Your task to perform on an android device: toggle location history Image 0: 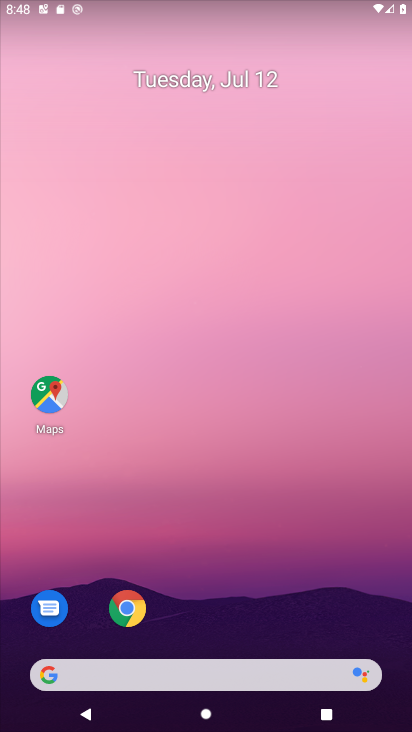
Step 0: click (53, 395)
Your task to perform on an android device: toggle location history Image 1: 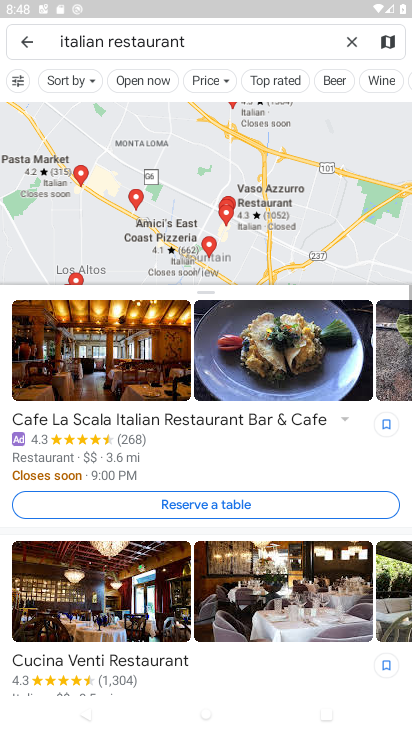
Step 1: click (24, 44)
Your task to perform on an android device: toggle location history Image 2: 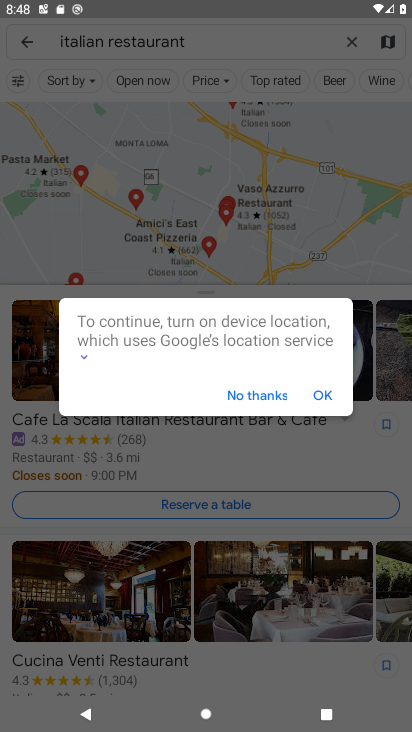
Step 2: click (326, 394)
Your task to perform on an android device: toggle location history Image 3: 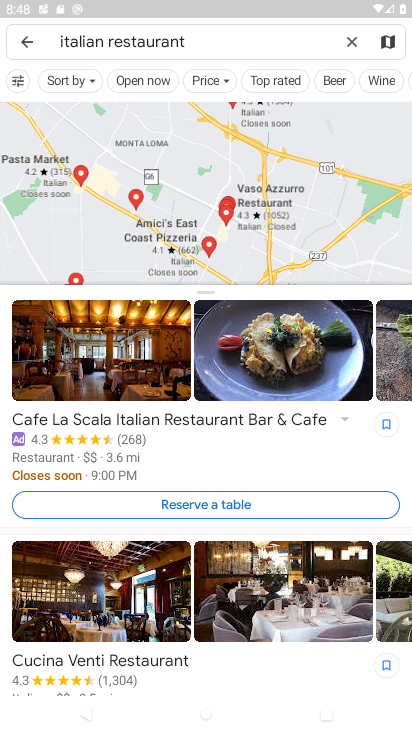
Step 3: click (22, 41)
Your task to perform on an android device: toggle location history Image 4: 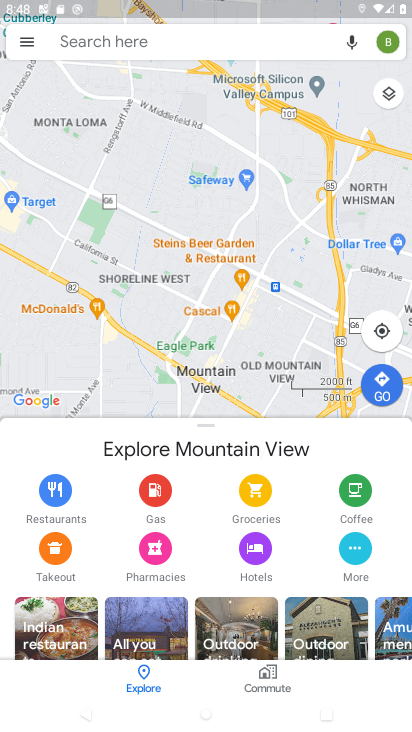
Step 4: click (33, 41)
Your task to perform on an android device: toggle location history Image 5: 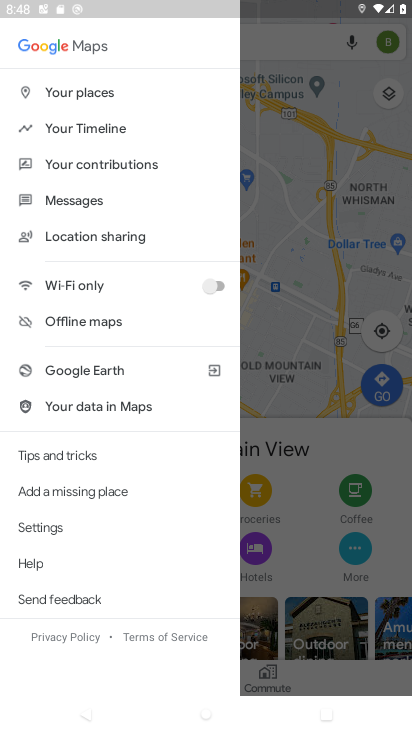
Step 5: click (116, 127)
Your task to perform on an android device: toggle location history Image 6: 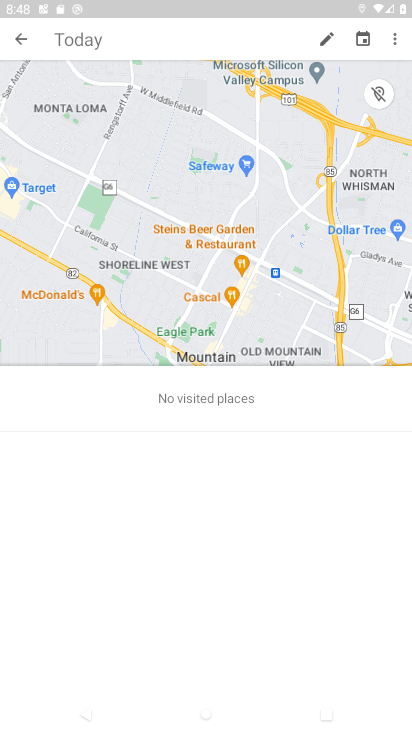
Step 6: click (392, 39)
Your task to perform on an android device: toggle location history Image 7: 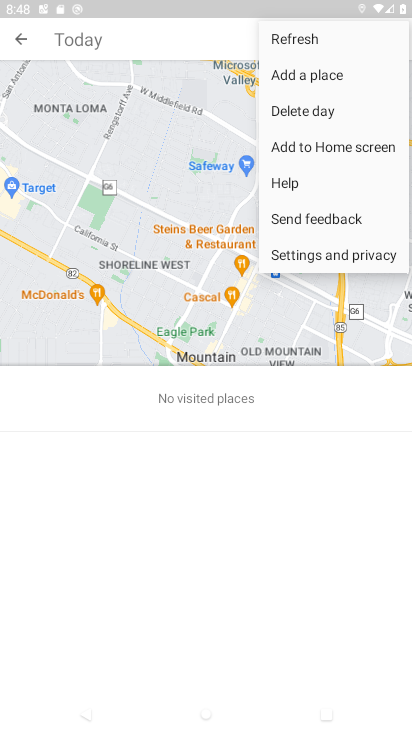
Step 7: click (313, 257)
Your task to perform on an android device: toggle location history Image 8: 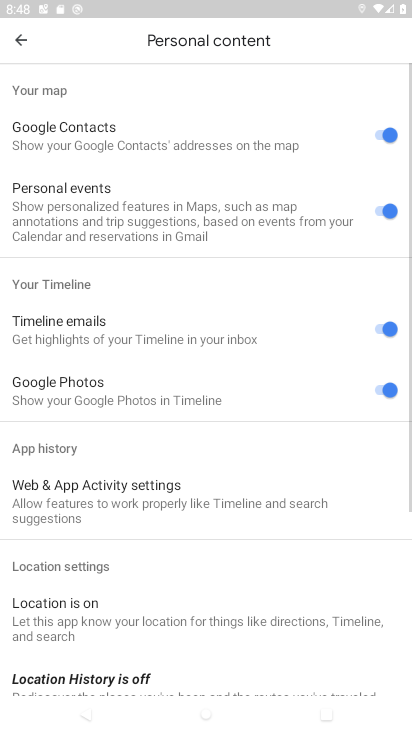
Step 8: drag from (187, 608) to (299, 119)
Your task to perform on an android device: toggle location history Image 9: 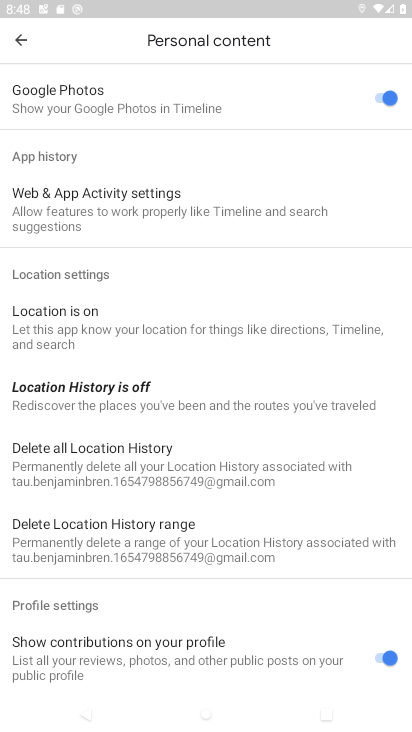
Step 9: click (132, 399)
Your task to perform on an android device: toggle location history Image 10: 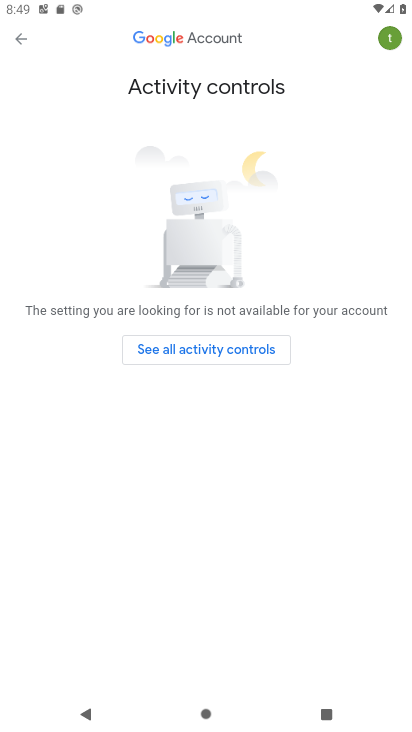
Step 10: click (225, 354)
Your task to perform on an android device: toggle location history Image 11: 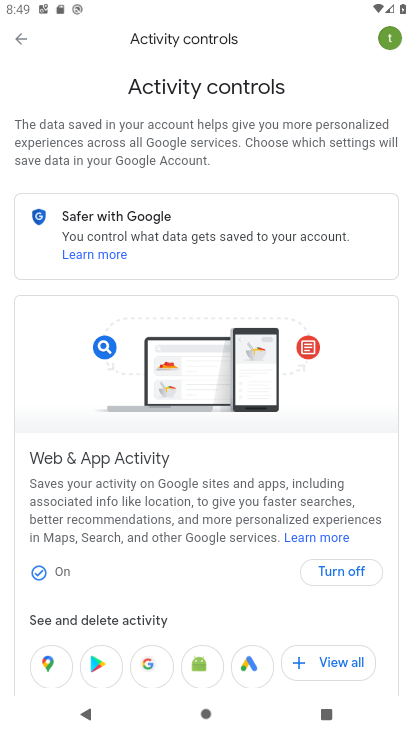
Step 11: drag from (223, 549) to (308, 178)
Your task to perform on an android device: toggle location history Image 12: 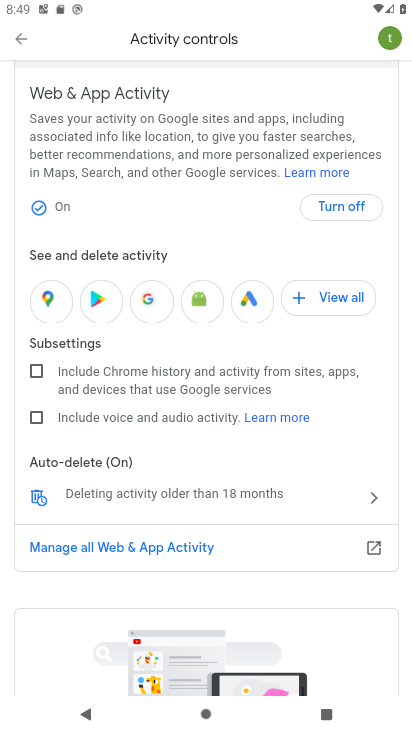
Step 12: click (345, 204)
Your task to perform on an android device: toggle location history Image 13: 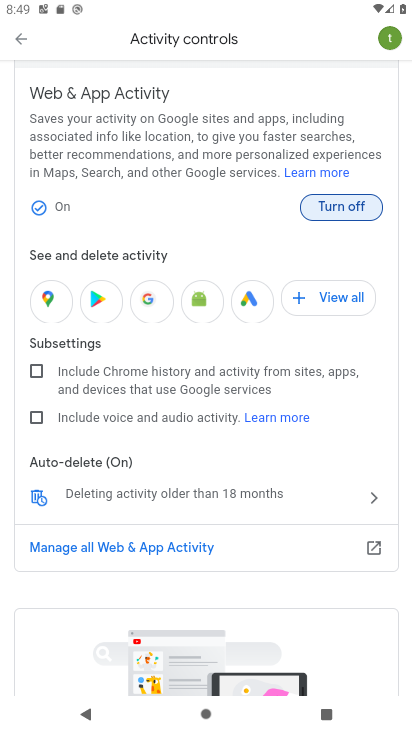
Step 13: click (345, 204)
Your task to perform on an android device: toggle location history Image 14: 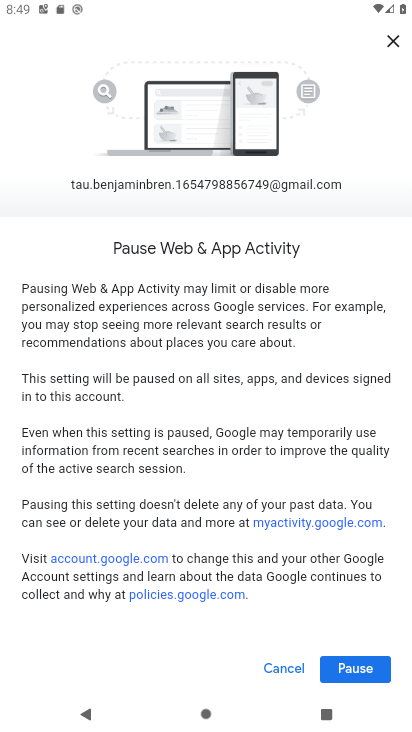
Step 14: drag from (302, 608) to (352, 140)
Your task to perform on an android device: toggle location history Image 15: 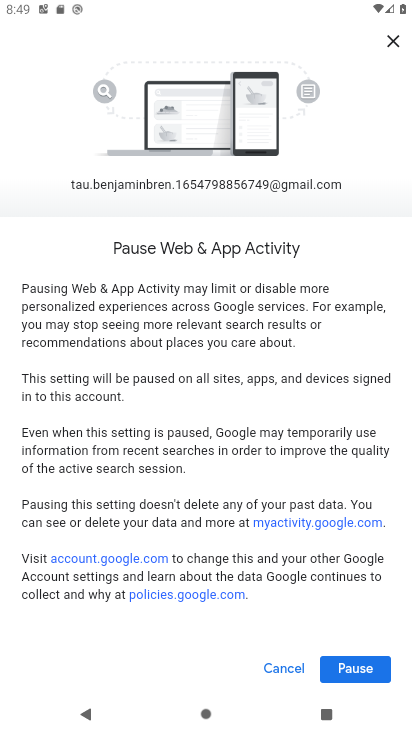
Step 15: click (358, 668)
Your task to perform on an android device: toggle location history Image 16: 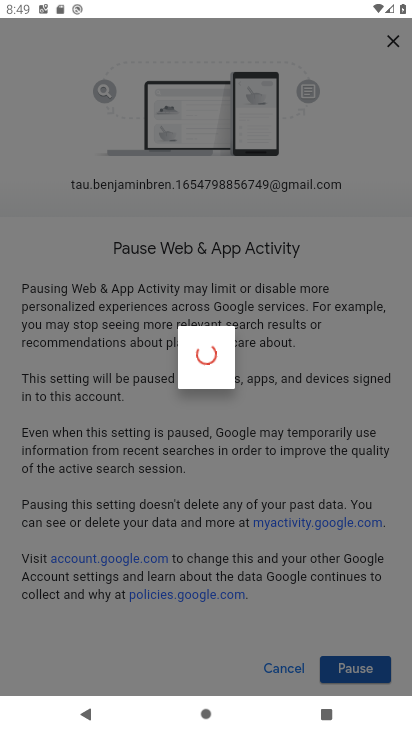
Step 16: click (350, 671)
Your task to perform on an android device: toggle location history Image 17: 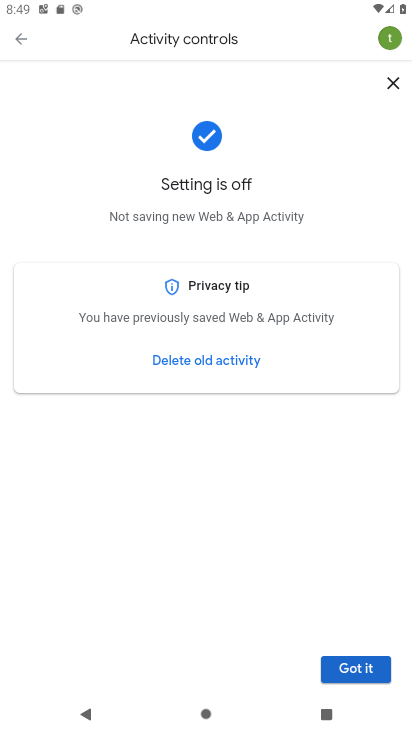
Step 17: click (358, 671)
Your task to perform on an android device: toggle location history Image 18: 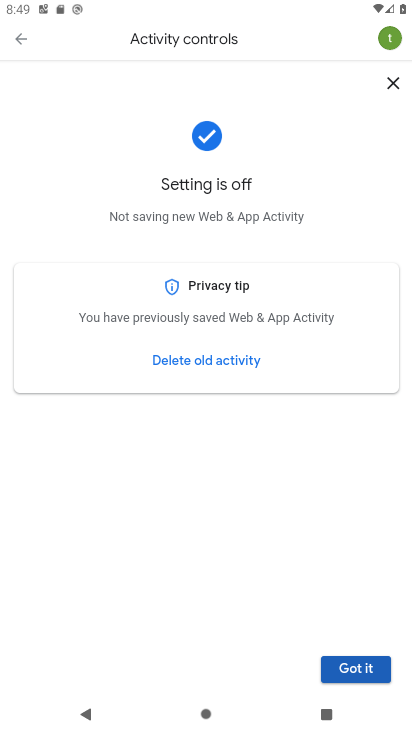
Step 18: click (362, 672)
Your task to perform on an android device: toggle location history Image 19: 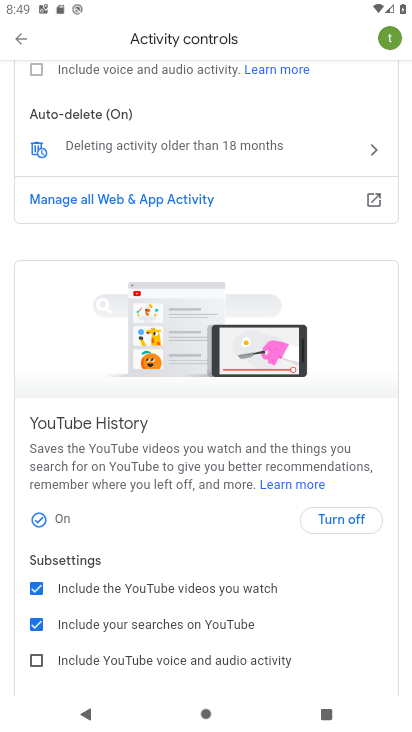
Step 19: task complete